Your task to perform on an android device: Open my contact list Image 0: 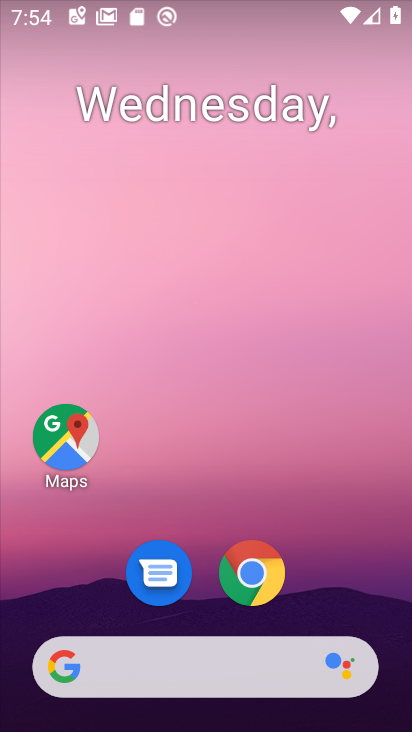
Step 0: drag from (324, 617) to (341, 1)
Your task to perform on an android device: Open my contact list Image 1: 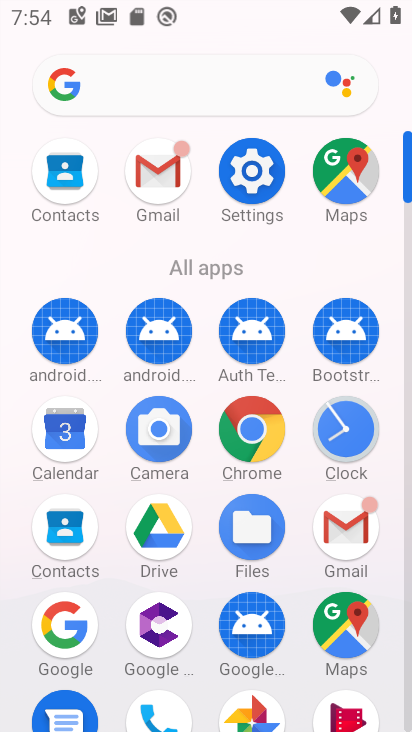
Step 1: click (67, 537)
Your task to perform on an android device: Open my contact list Image 2: 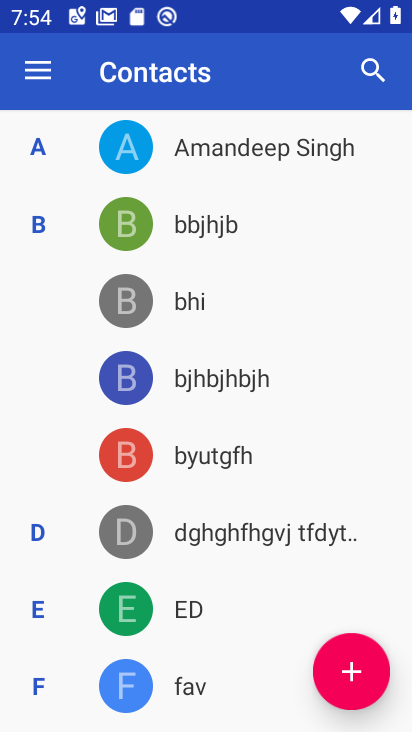
Step 2: task complete